Your task to perform on an android device: Go to Android settings Image 0: 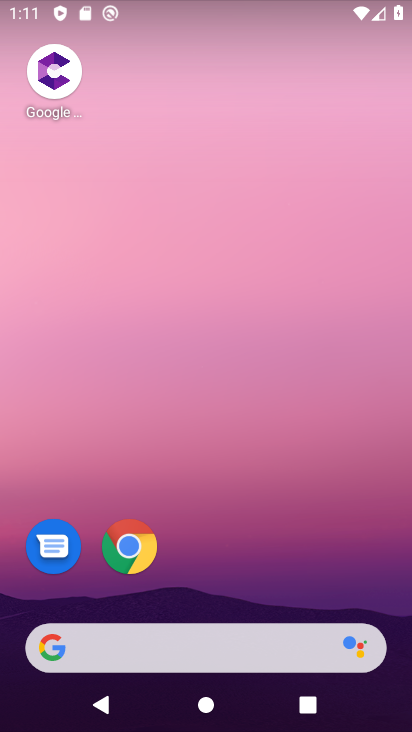
Step 0: drag from (206, 527) to (243, 146)
Your task to perform on an android device: Go to Android settings Image 1: 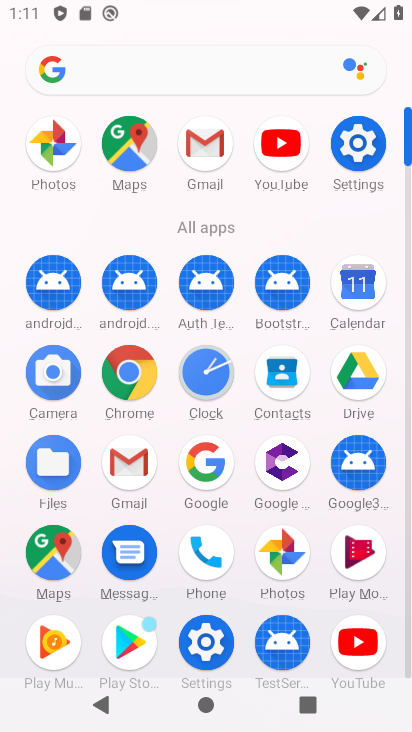
Step 1: click (198, 634)
Your task to perform on an android device: Go to Android settings Image 2: 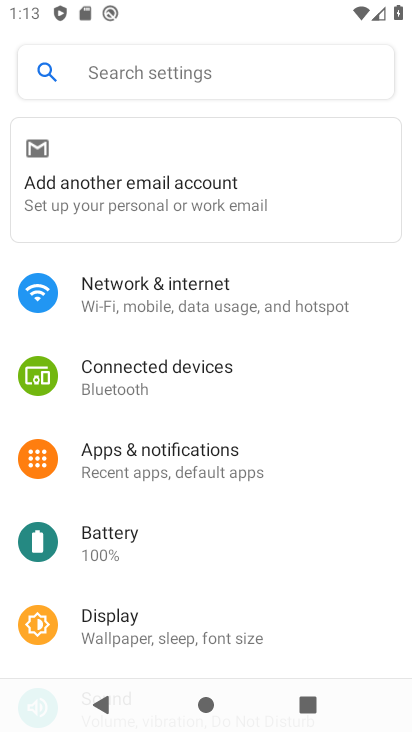
Step 2: drag from (160, 610) to (374, 105)
Your task to perform on an android device: Go to Android settings Image 3: 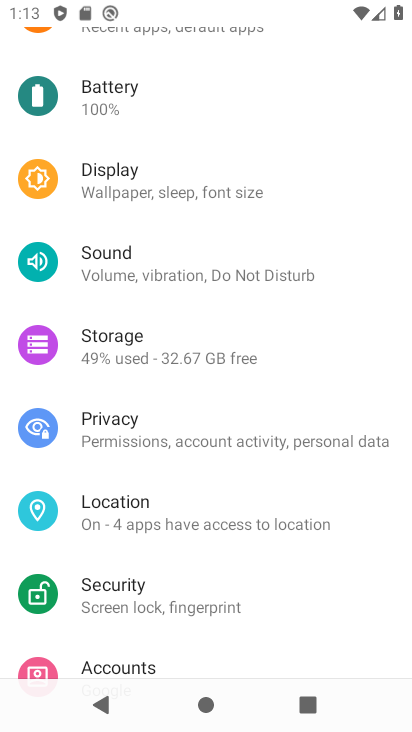
Step 3: drag from (176, 624) to (361, 128)
Your task to perform on an android device: Go to Android settings Image 4: 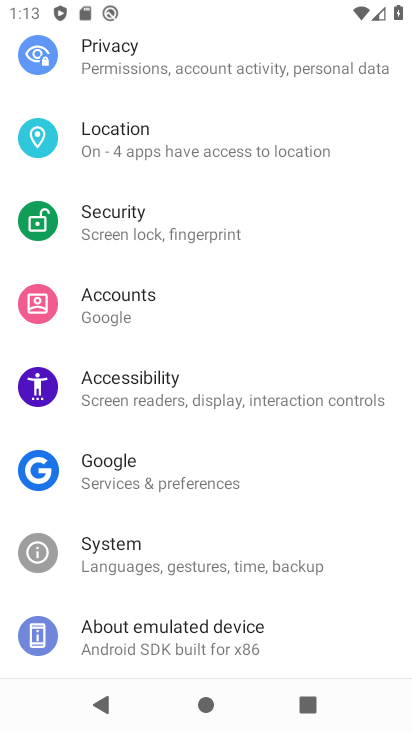
Step 4: click (177, 647)
Your task to perform on an android device: Go to Android settings Image 5: 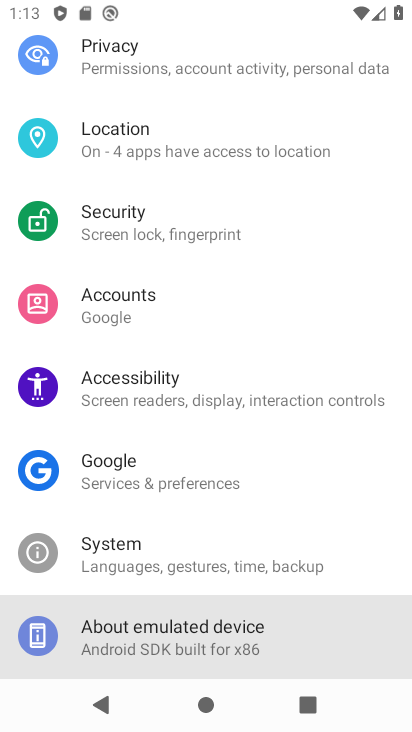
Step 5: click (177, 647)
Your task to perform on an android device: Go to Android settings Image 6: 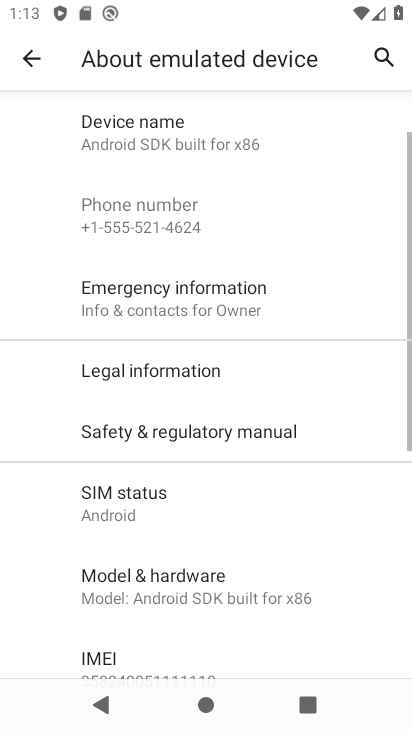
Step 6: drag from (225, 581) to (407, 237)
Your task to perform on an android device: Go to Android settings Image 7: 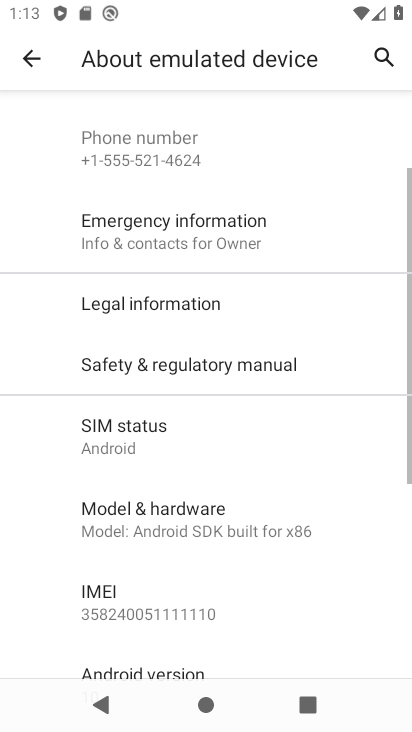
Step 7: drag from (203, 610) to (306, 234)
Your task to perform on an android device: Go to Android settings Image 8: 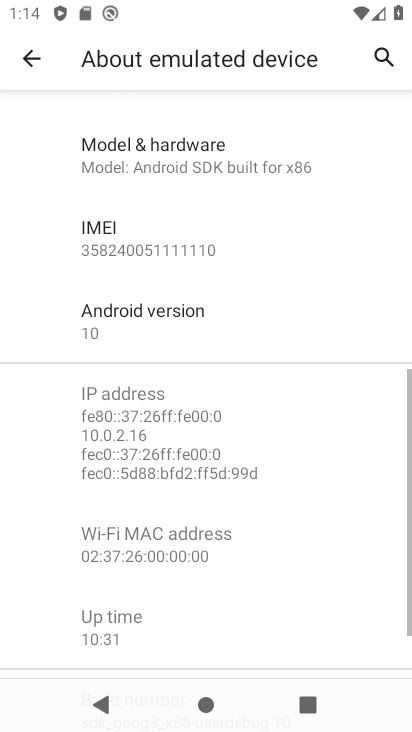
Step 8: click (170, 342)
Your task to perform on an android device: Go to Android settings Image 9: 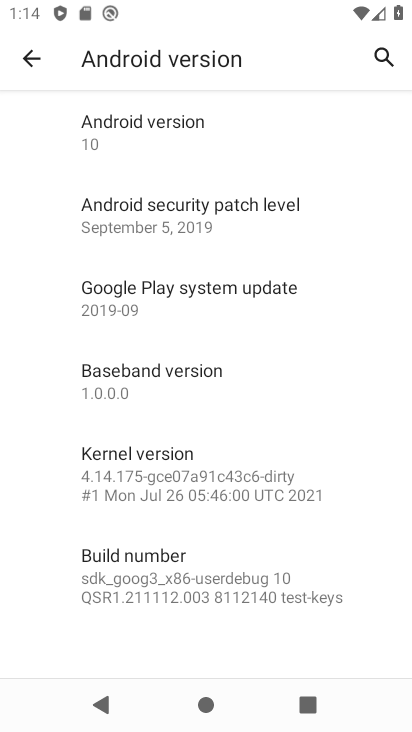
Step 9: task complete